Your task to perform on an android device: Open maps Image 0: 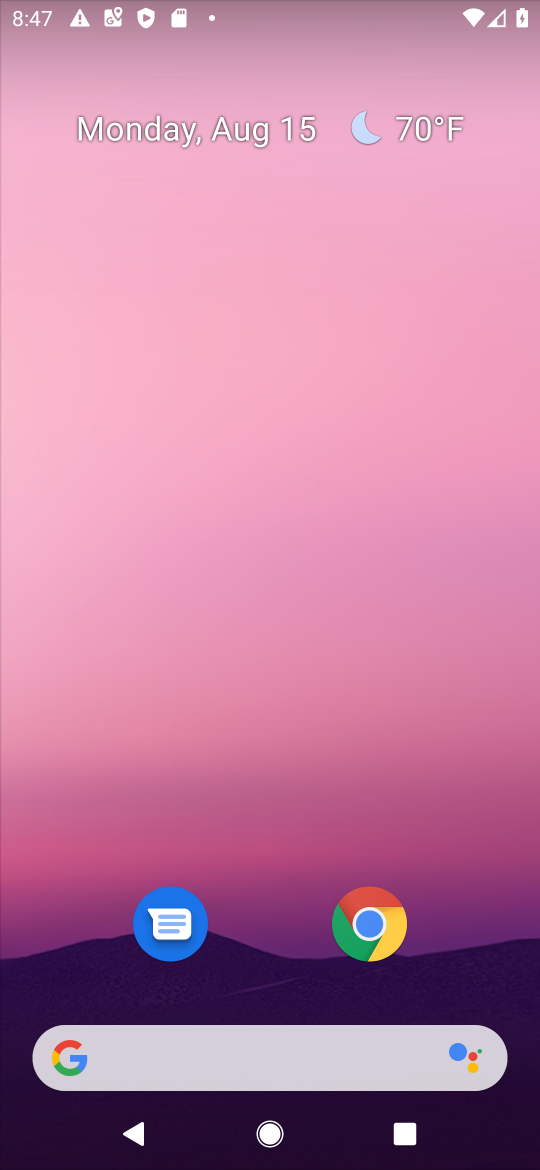
Step 0: drag from (516, 986) to (490, 110)
Your task to perform on an android device: Open maps Image 1: 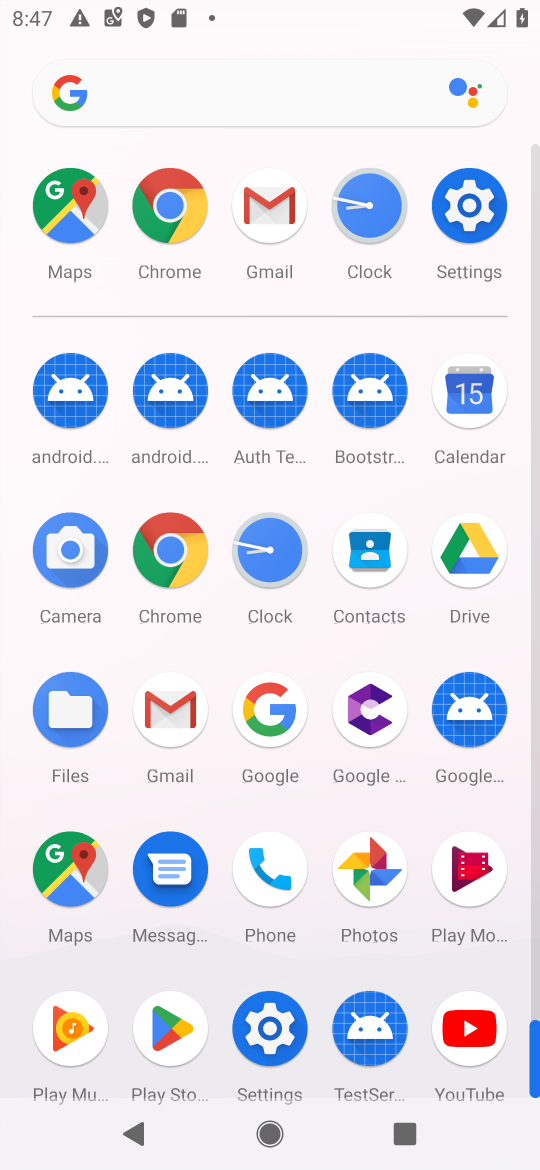
Step 1: click (69, 873)
Your task to perform on an android device: Open maps Image 2: 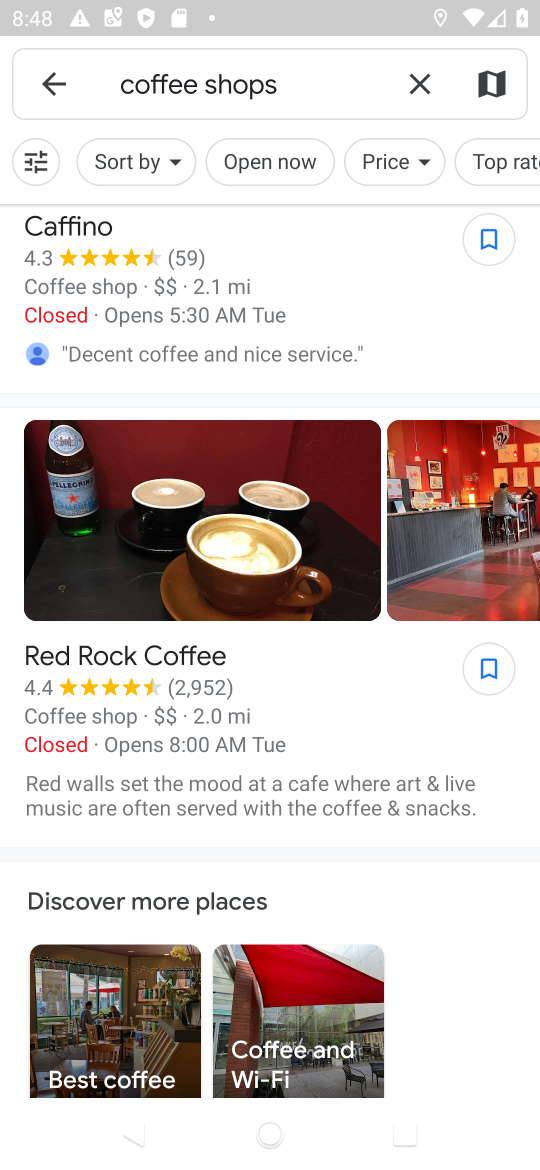
Step 2: click (421, 82)
Your task to perform on an android device: Open maps Image 3: 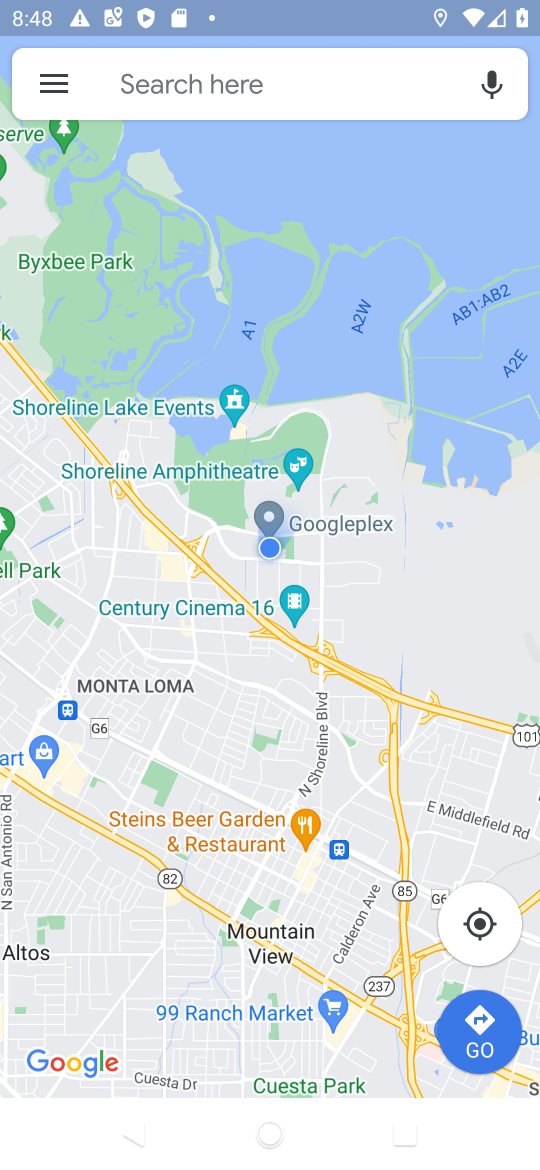
Step 3: task complete